Your task to perform on an android device: clear all cookies in the chrome app Image 0: 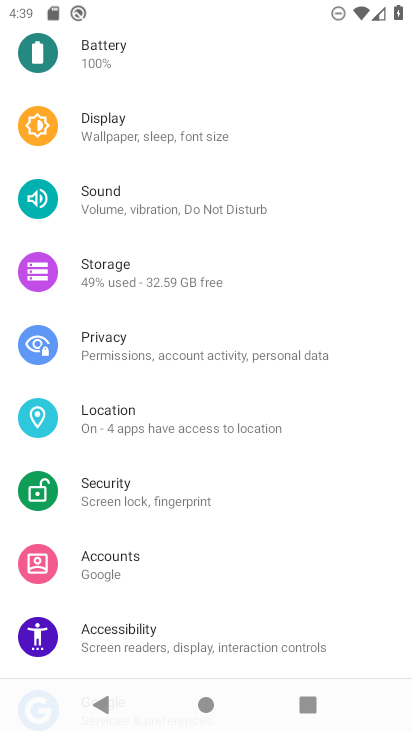
Step 0: press home button
Your task to perform on an android device: clear all cookies in the chrome app Image 1: 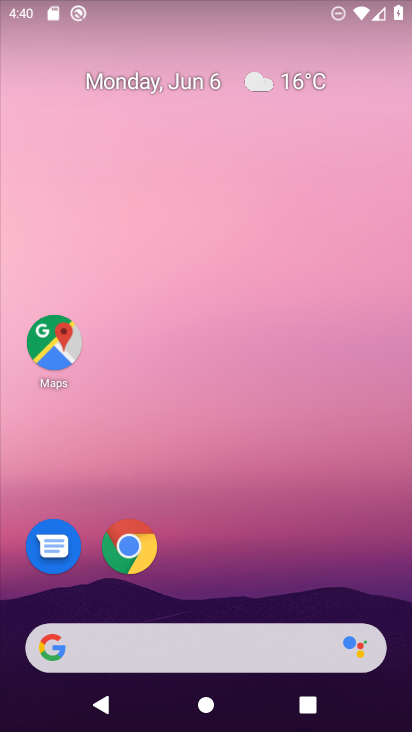
Step 1: click (110, 560)
Your task to perform on an android device: clear all cookies in the chrome app Image 2: 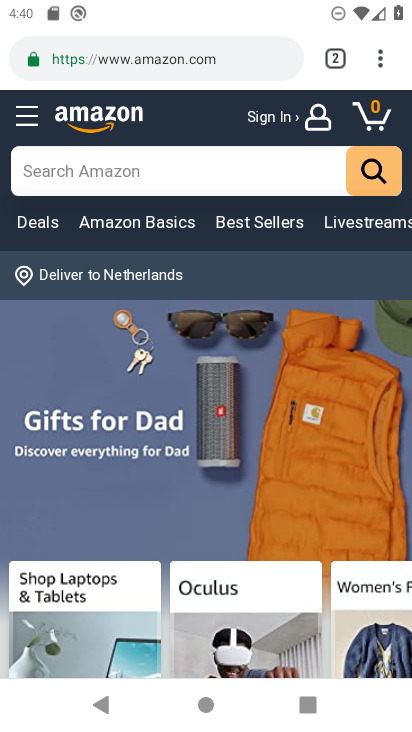
Step 2: drag from (195, 608) to (161, 367)
Your task to perform on an android device: clear all cookies in the chrome app Image 3: 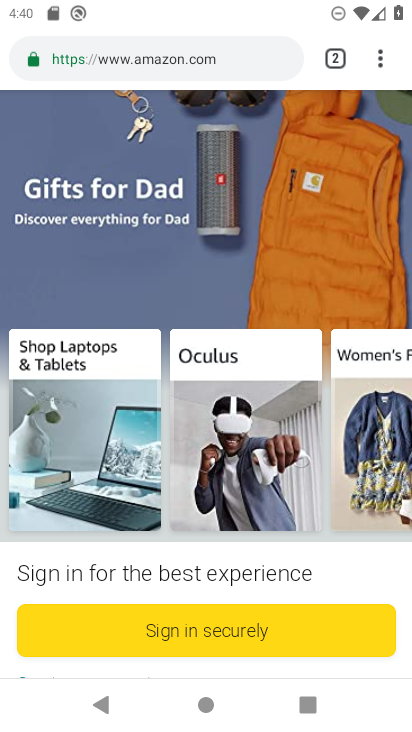
Step 3: click (385, 59)
Your task to perform on an android device: clear all cookies in the chrome app Image 4: 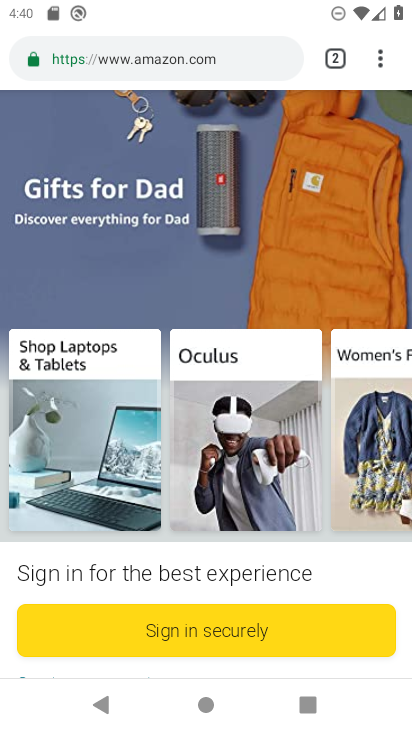
Step 4: drag from (374, 59) to (152, 385)
Your task to perform on an android device: clear all cookies in the chrome app Image 5: 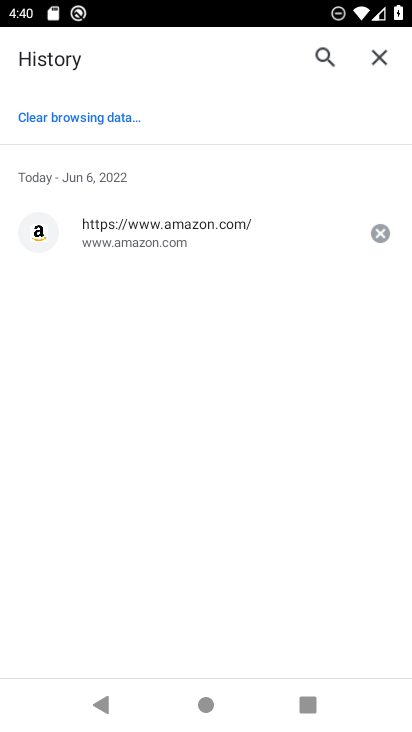
Step 5: click (82, 115)
Your task to perform on an android device: clear all cookies in the chrome app Image 6: 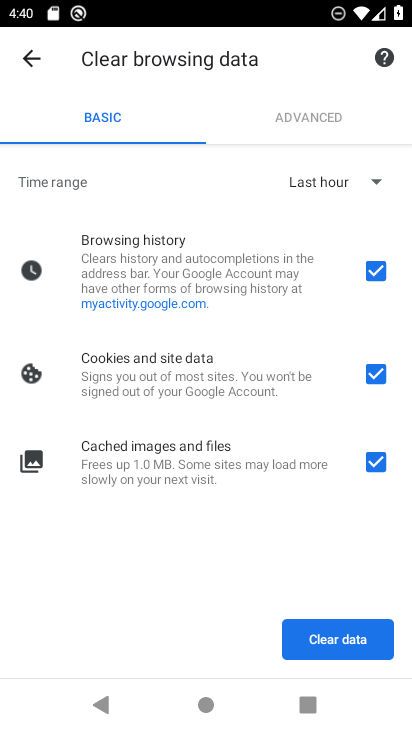
Step 6: click (306, 640)
Your task to perform on an android device: clear all cookies in the chrome app Image 7: 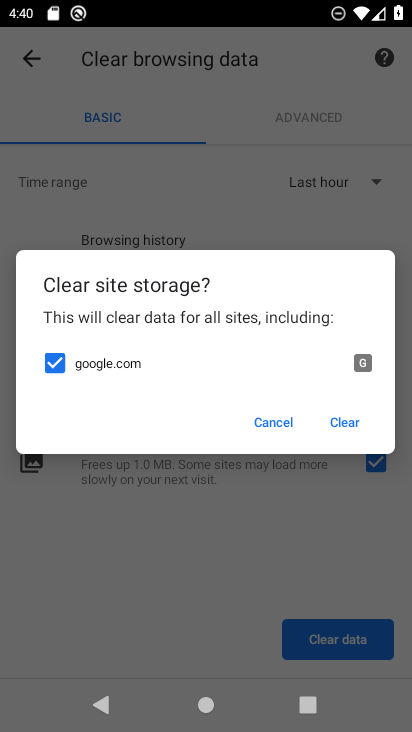
Step 7: click (345, 425)
Your task to perform on an android device: clear all cookies in the chrome app Image 8: 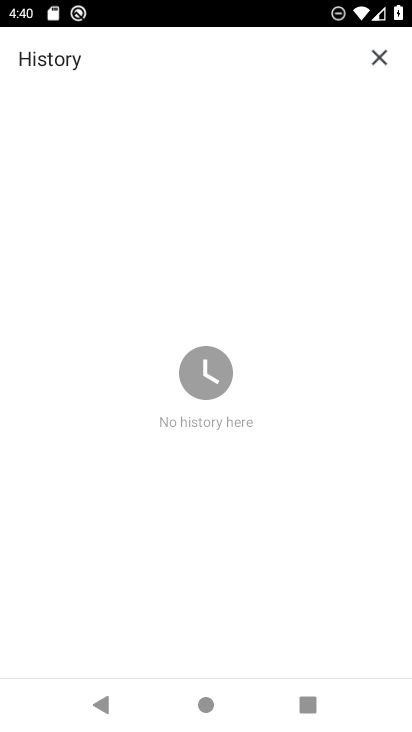
Step 8: task complete